Your task to perform on an android device: Search for "logitech g pro" on newegg, select the first entry, add it to the cart, then select checkout. Image 0: 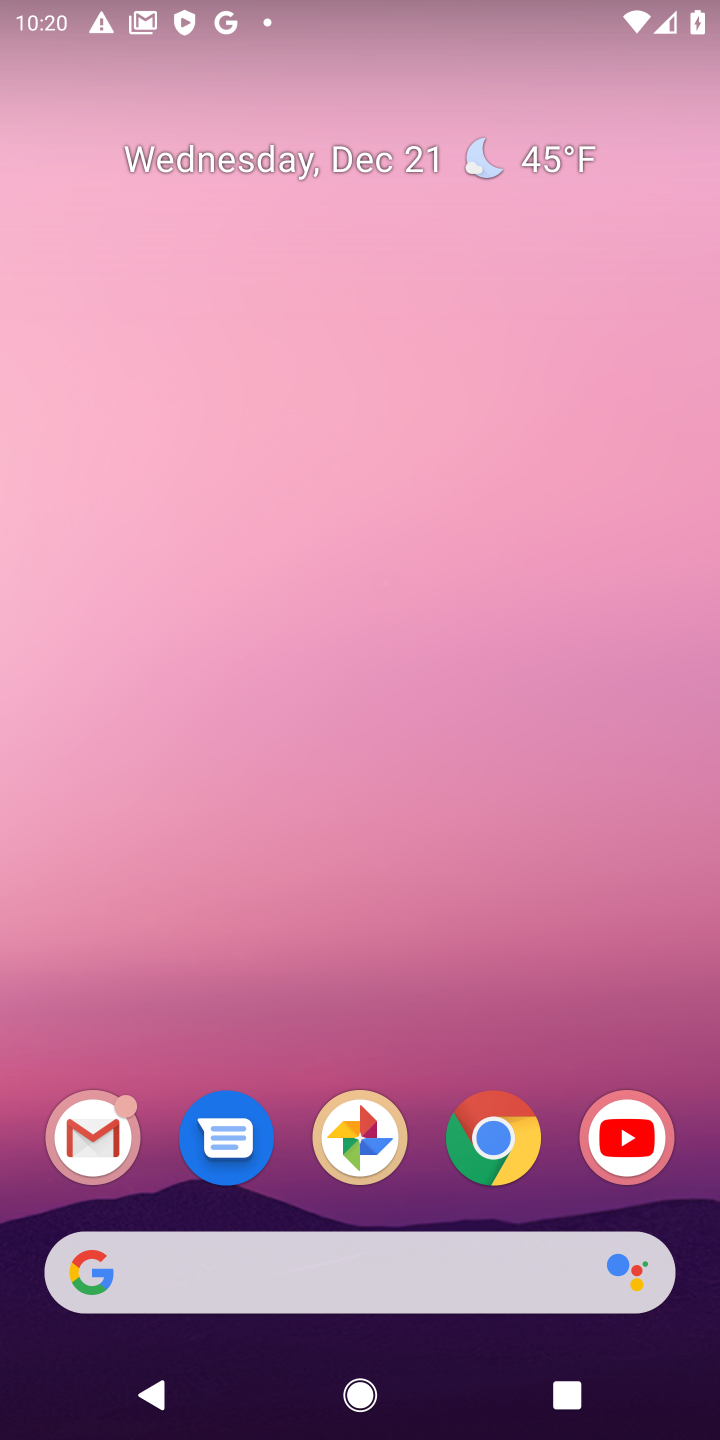
Step 0: click (499, 1149)
Your task to perform on an android device: Search for "logitech g pro" on newegg, select the first entry, add it to the cart, then select checkout. Image 1: 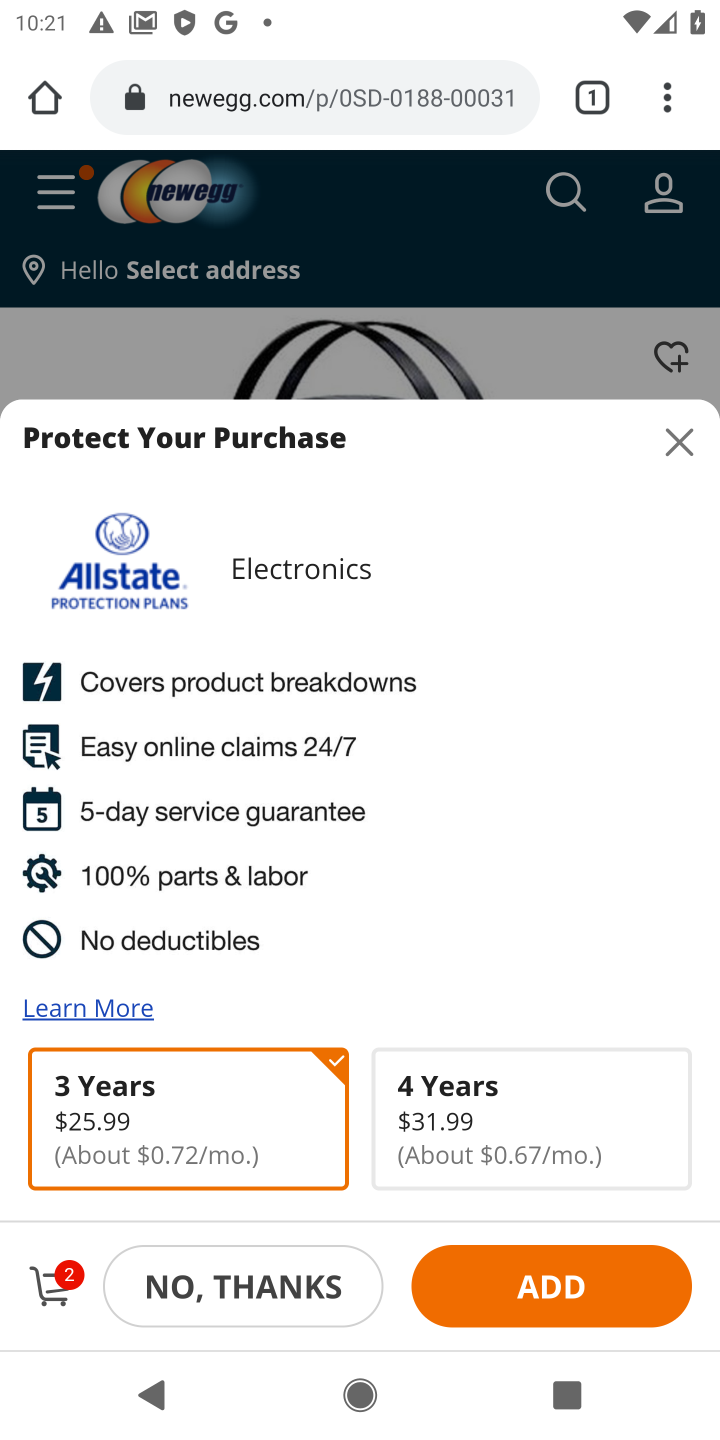
Step 1: click (680, 442)
Your task to perform on an android device: Search for "logitech g pro" on newegg, select the first entry, add it to the cart, then select checkout. Image 2: 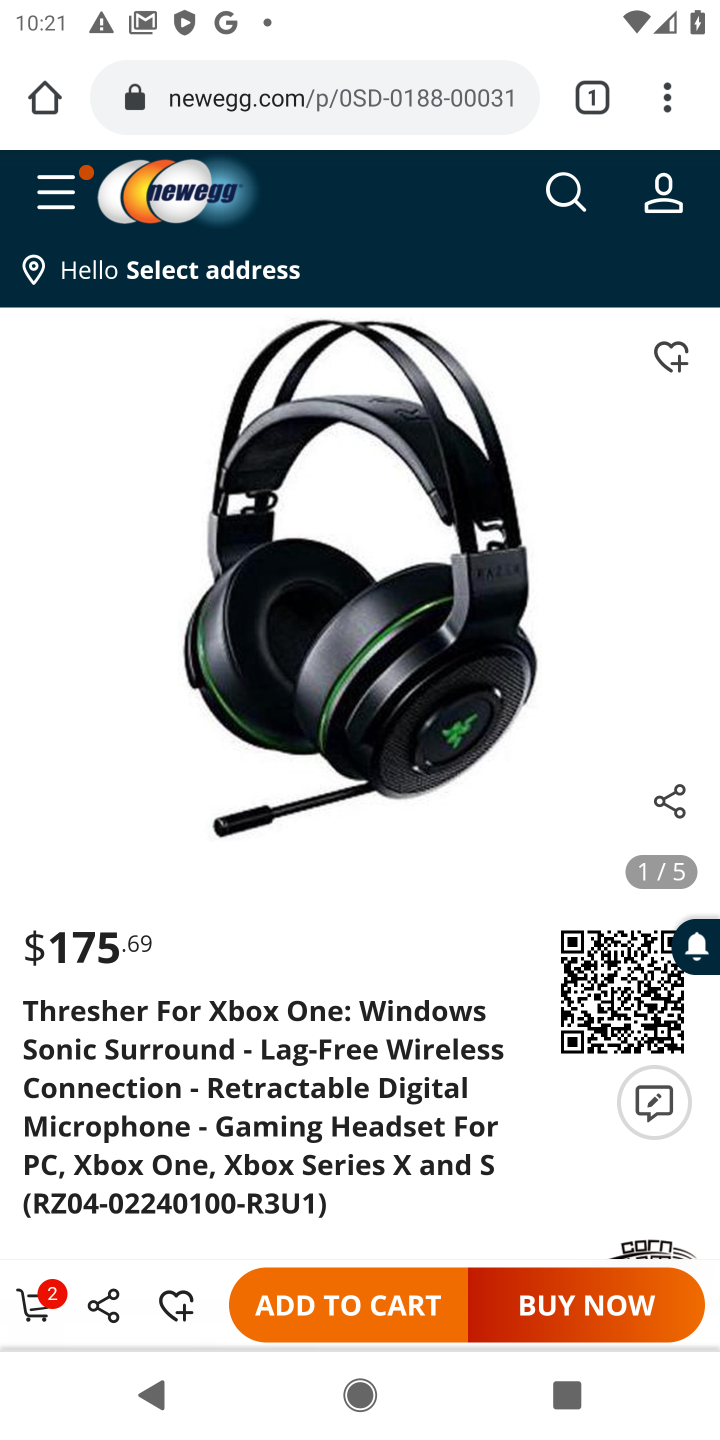
Step 2: click (564, 191)
Your task to perform on an android device: Search for "logitech g pro" on newegg, select the first entry, add it to the cart, then select checkout. Image 3: 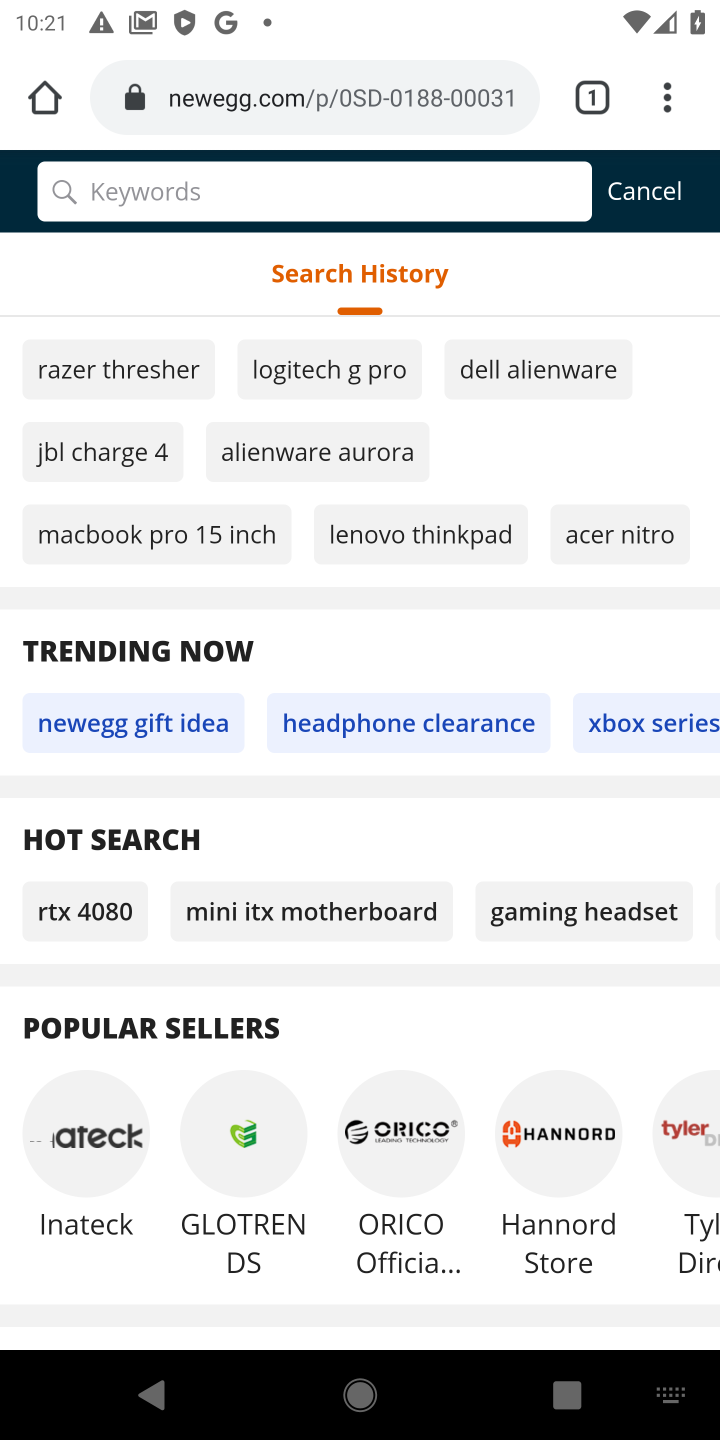
Step 3: type "logitech g pro"
Your task to perform on an android device: Search for "logitech g pro" on newegg, select the first entry, add it to the cart, then select checkout. Image 4: 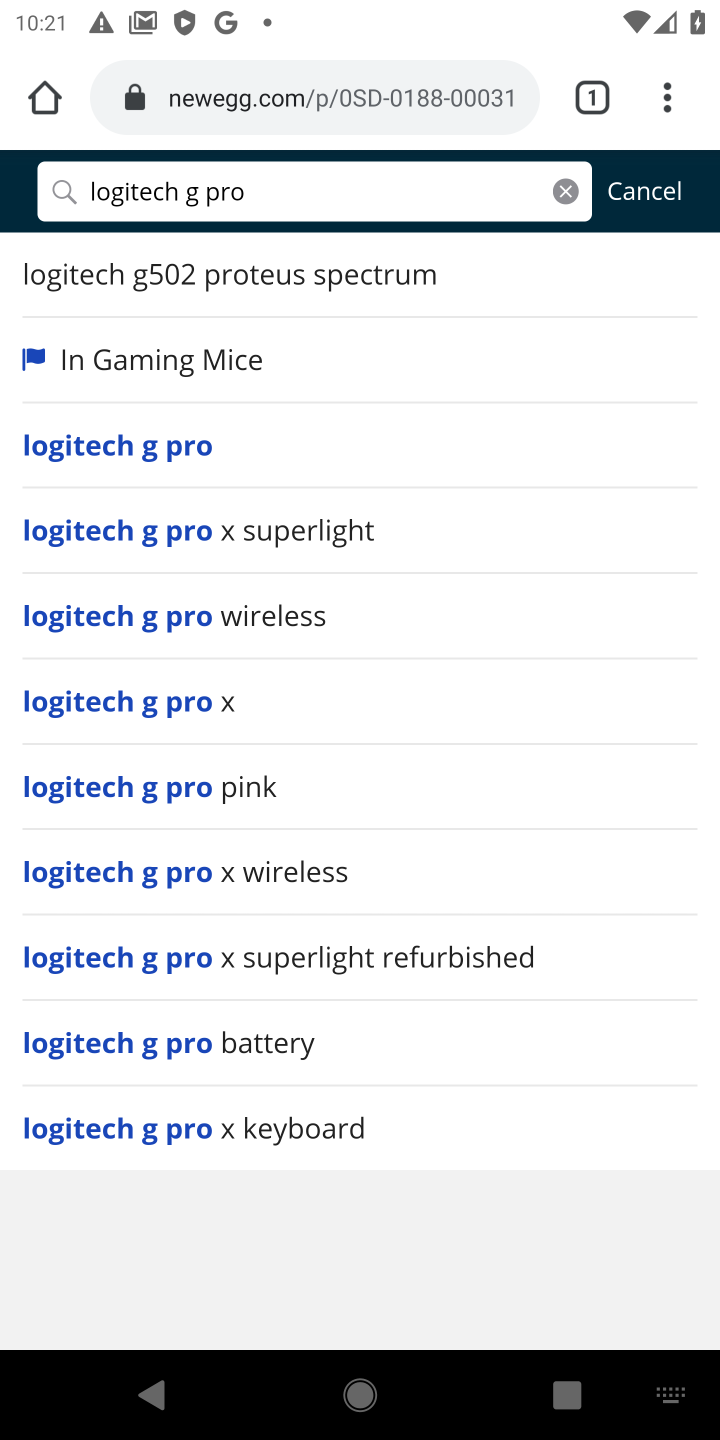
Step 4: click (110, 455)
Your task to perform on an android device: Search for "logitech g pro" on newegg, select the first entry, add it to the cart, then select checkout. Image 5: 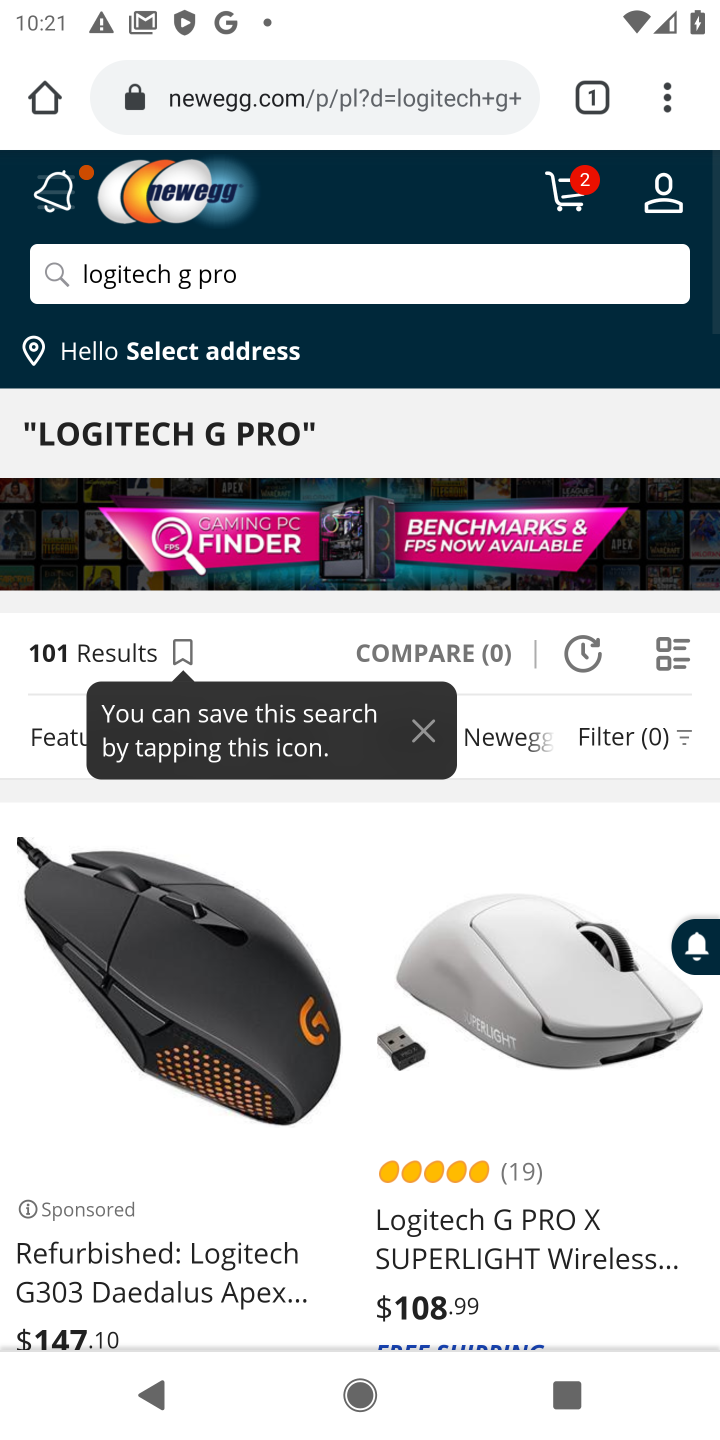
Step 5: task complete